Your task to perform on an android device: Is it going to rain tomorrow? Image 0: 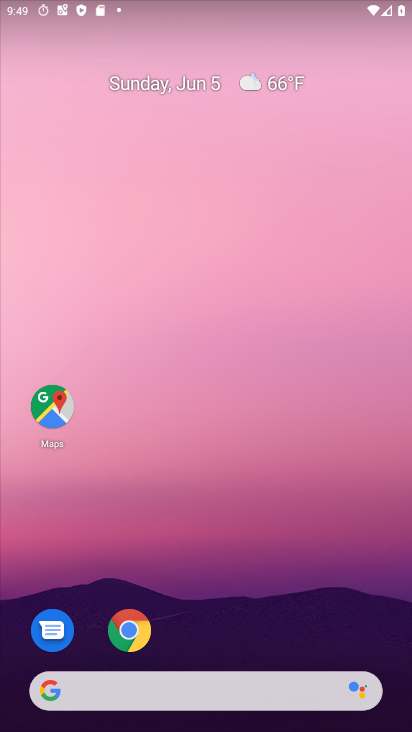
Step 0: drag from (217, 728) to (224, 0)
Your task to perform on an android device: Is it going to rain tomorrow? Image 1: 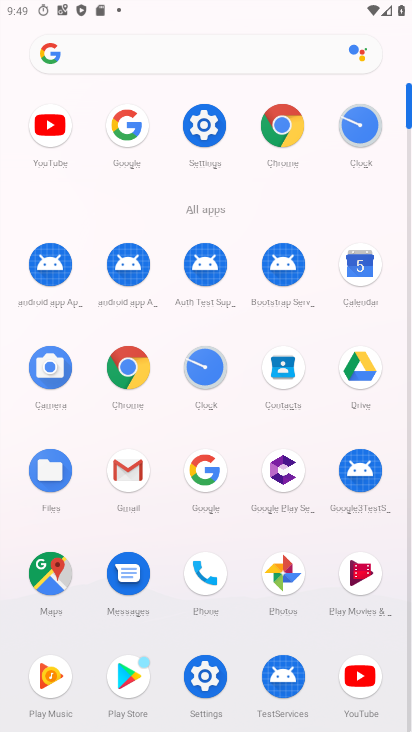
Step 1: click (202, 467)
Your task to perform on an android device: Is it going to rain tomorrow? Image 2: 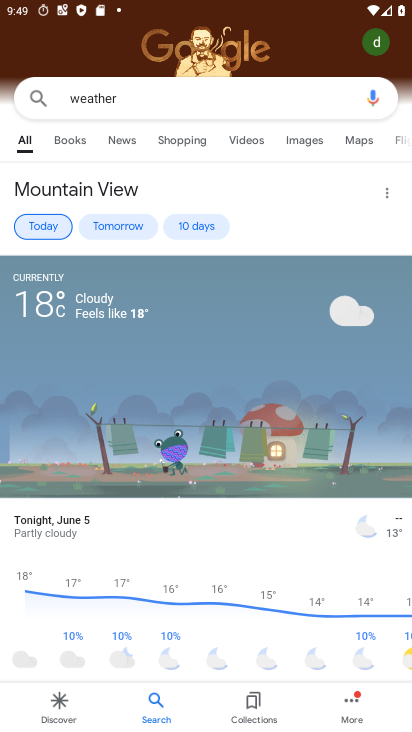
Step 2: click (119, 222)
Your task to perform on an android device: Is it going to rain tomorrow? Image 3: 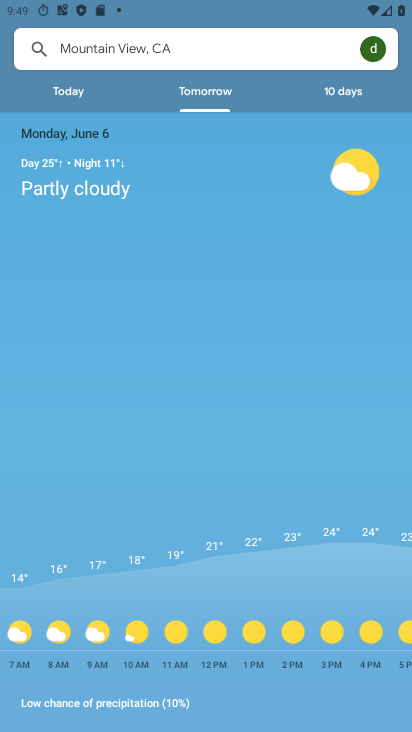
Step 3: task complete